Your task to perform on an android device: turn off priority inbox in the gmail app Image 0: 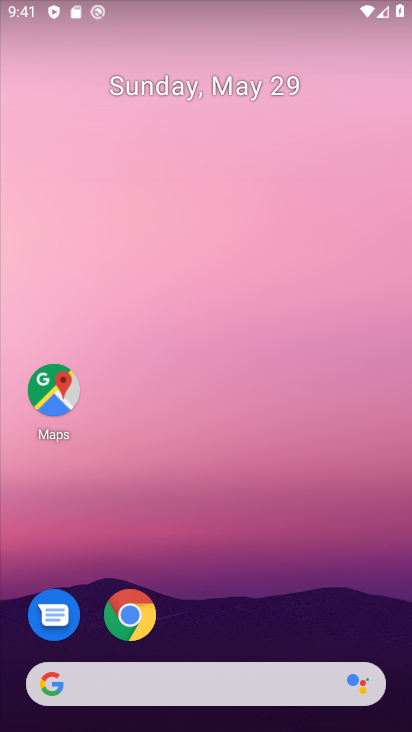
Step 0: drag from (243, 658) to (222, 16)
Your task to perform on an android device: turn off priority inbox in the gmail app Image 1: 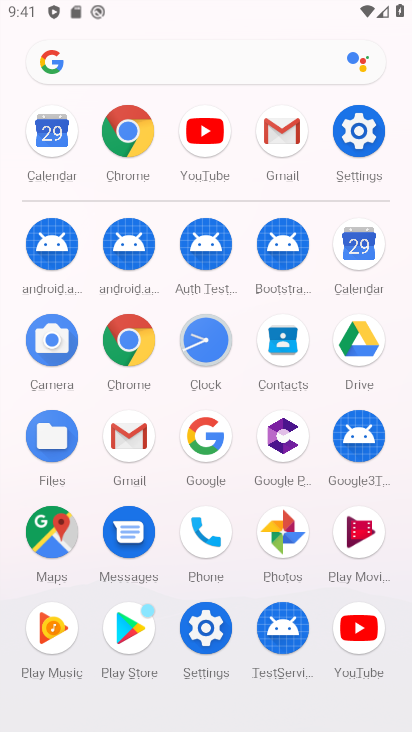
Step 1: click (130, 440)
Your task to perform on an android device: turn off priority inbox in the gmail app Image 2: 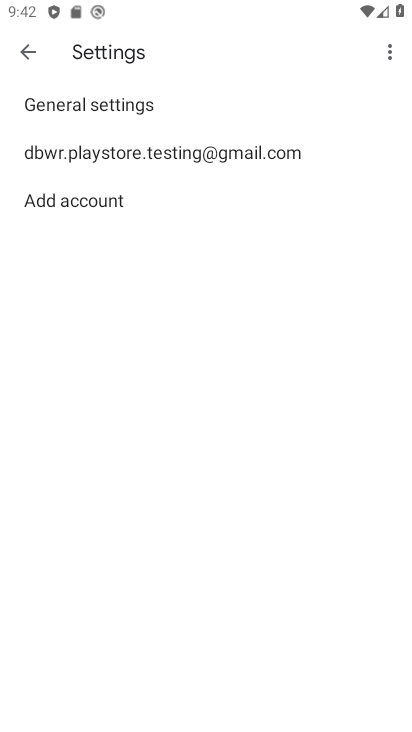
Step 2: click (53, 153)
Your task to perform on an android device: turn off priority inbox in the gmail app Image 3: 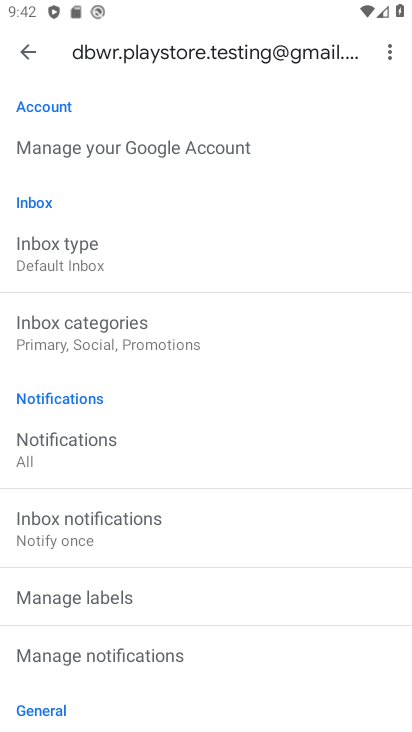
Step 3: drag from (122, 600) to (61, 132)
Your task to perform on an android device: turn off priority inbox in the gmail app Image 4: 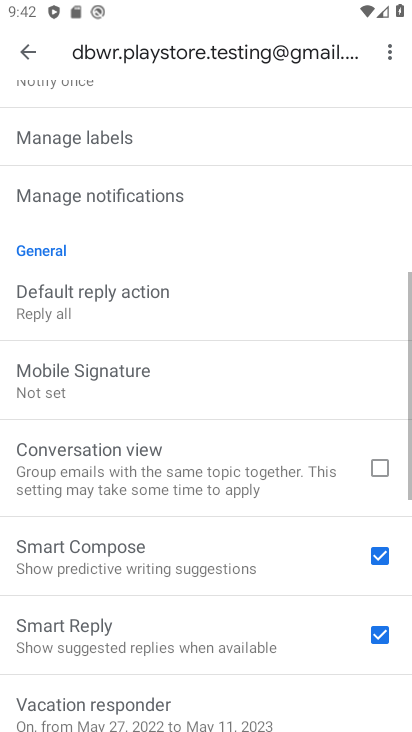
Step 4: drag from (61, 131) to (84, 636)
Your task to perform on an android device: turn off priority inbox in the gmail app Image 5: 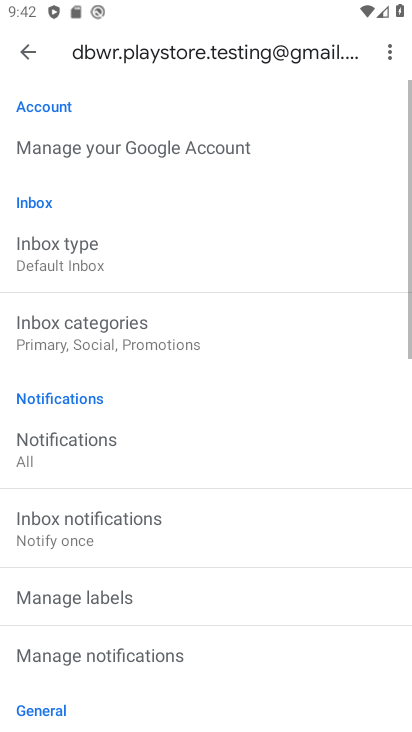
Step 5: click (63, 263)
Your task to perform on an android device: turn off priority inbox in the gmail app Image 6: 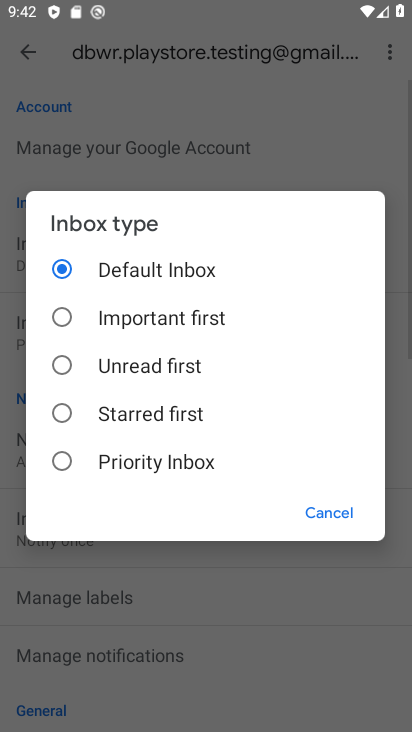
Step 6: task complete